Your task to perform on an android device: Clear the shopping cart on bestbuy. Search for razer blade on bestbuy, select the first entry, and add it to the cart. Image 0: 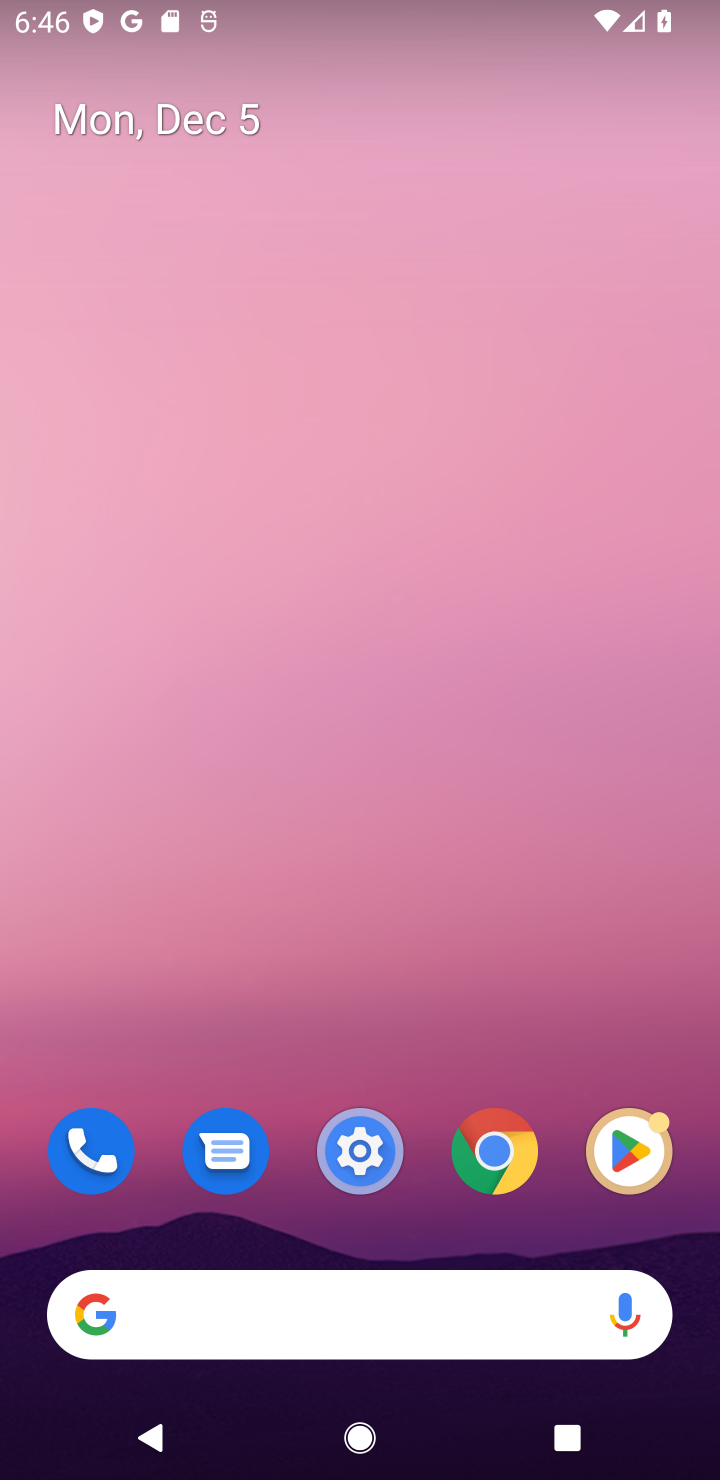
Step 0: click (391, 1333)
Your task to perform on an android device: Clear the shopping cart on bestbuy. Search for razer blade on bestbuy, select the first entry, and add it to the cart. Image 1: 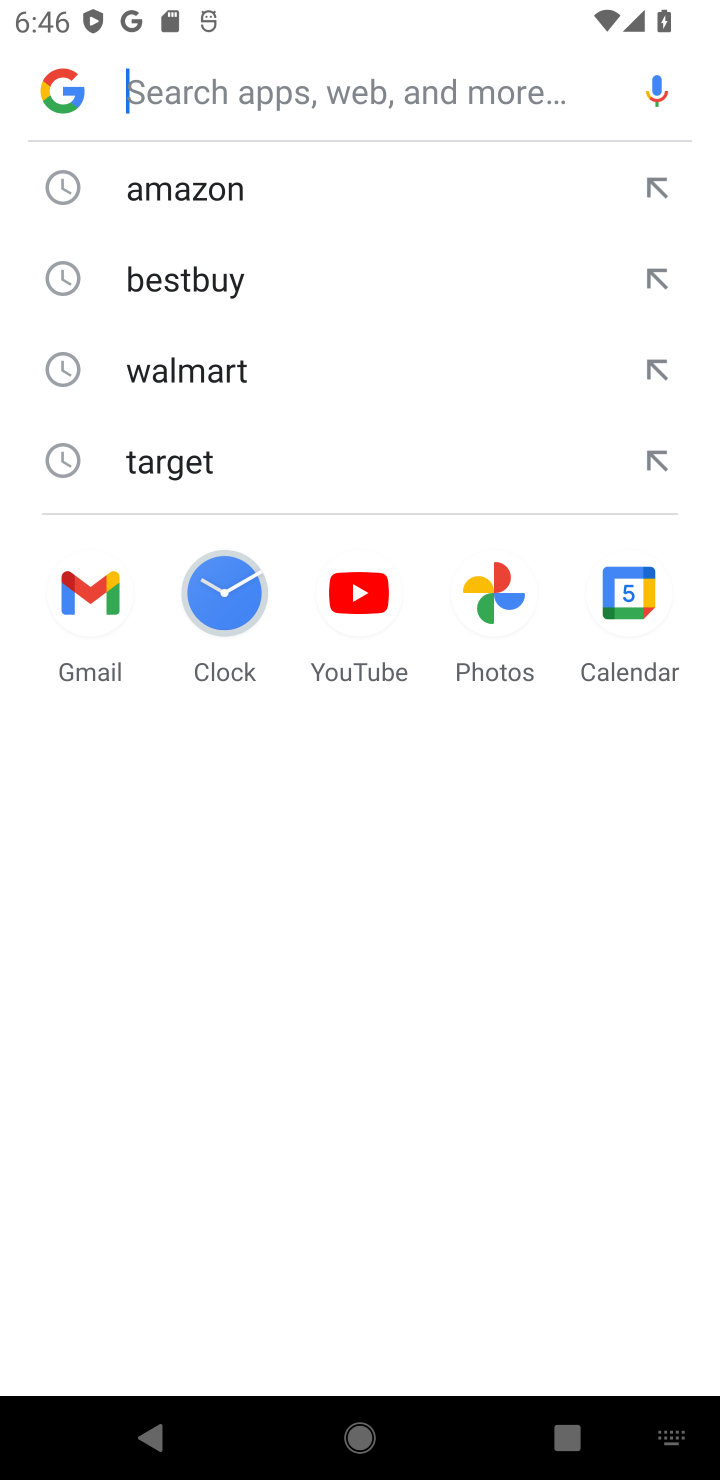
Step 1: click (291, 303)
Your task to perform on an android device: Clear the shopping cart on bestbuy. Search for razer blade on bestbuy, select the first entry, and add it to the cart. Image 2: 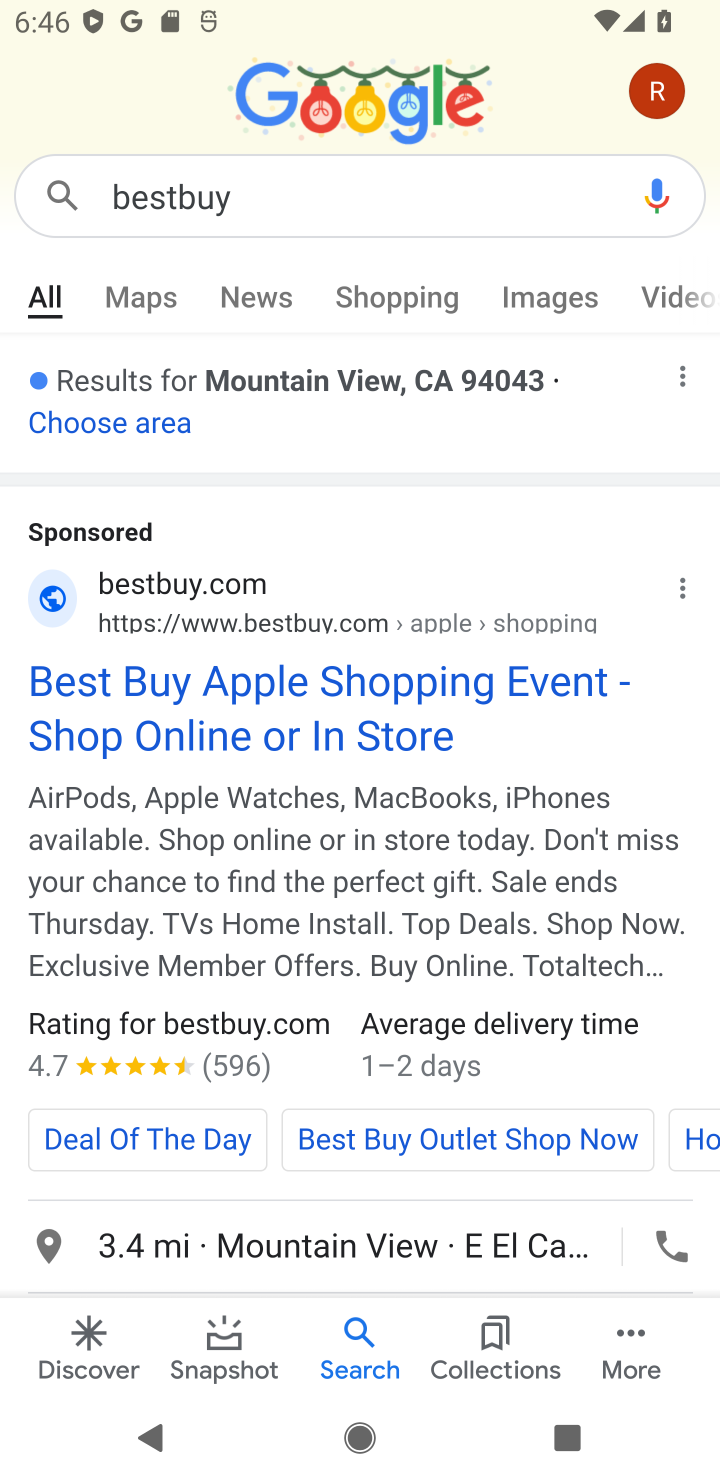
Step 2: click (277, 724)
Your task to perform on an android device: Clear the shopping cart on bestbuy. Search for razer blade on bestbuy, select the first entry, and add it to the cart. Image 3: 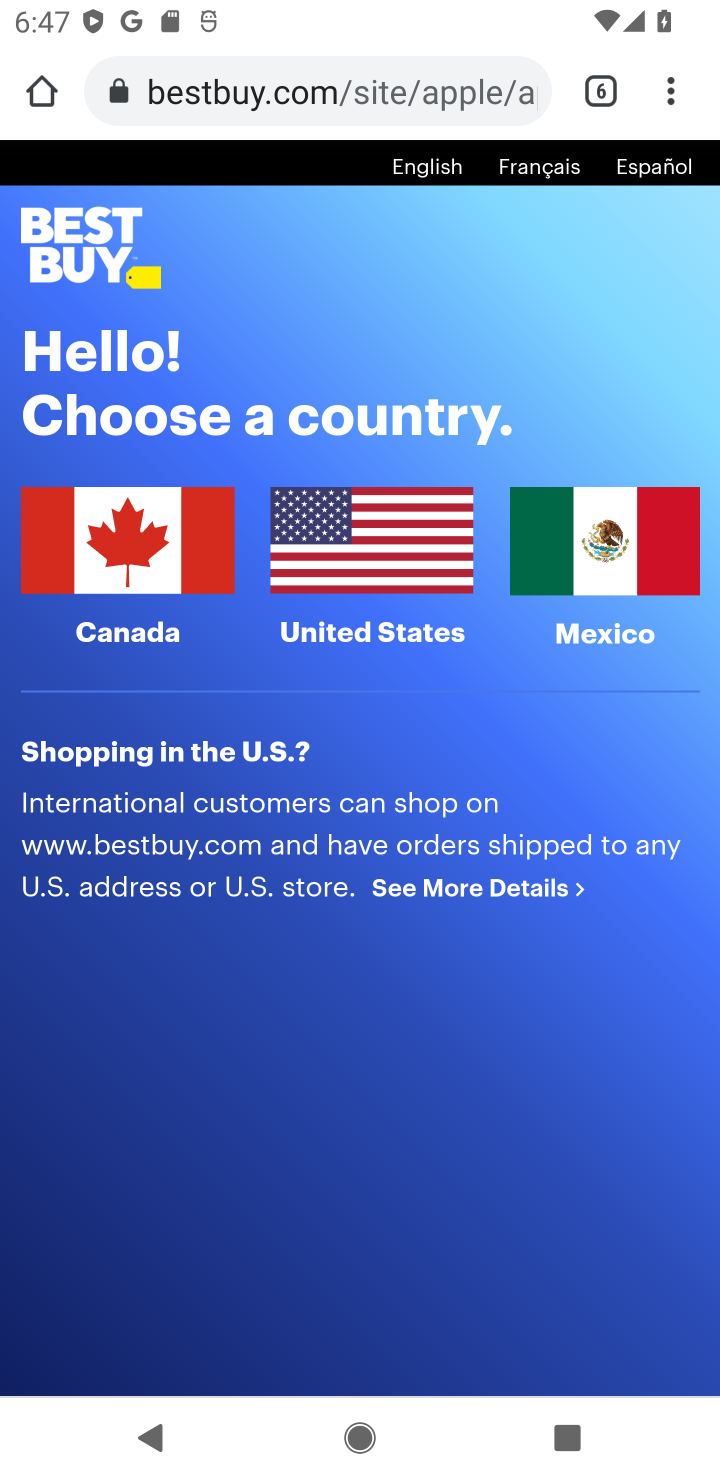
Step 3: click (187, 621)
Your task to perform on an android device: Clear the shopping cart on bestbuy. Search for razer blade on bestbuy, select the first entry, and add it to the cart. Image 4: 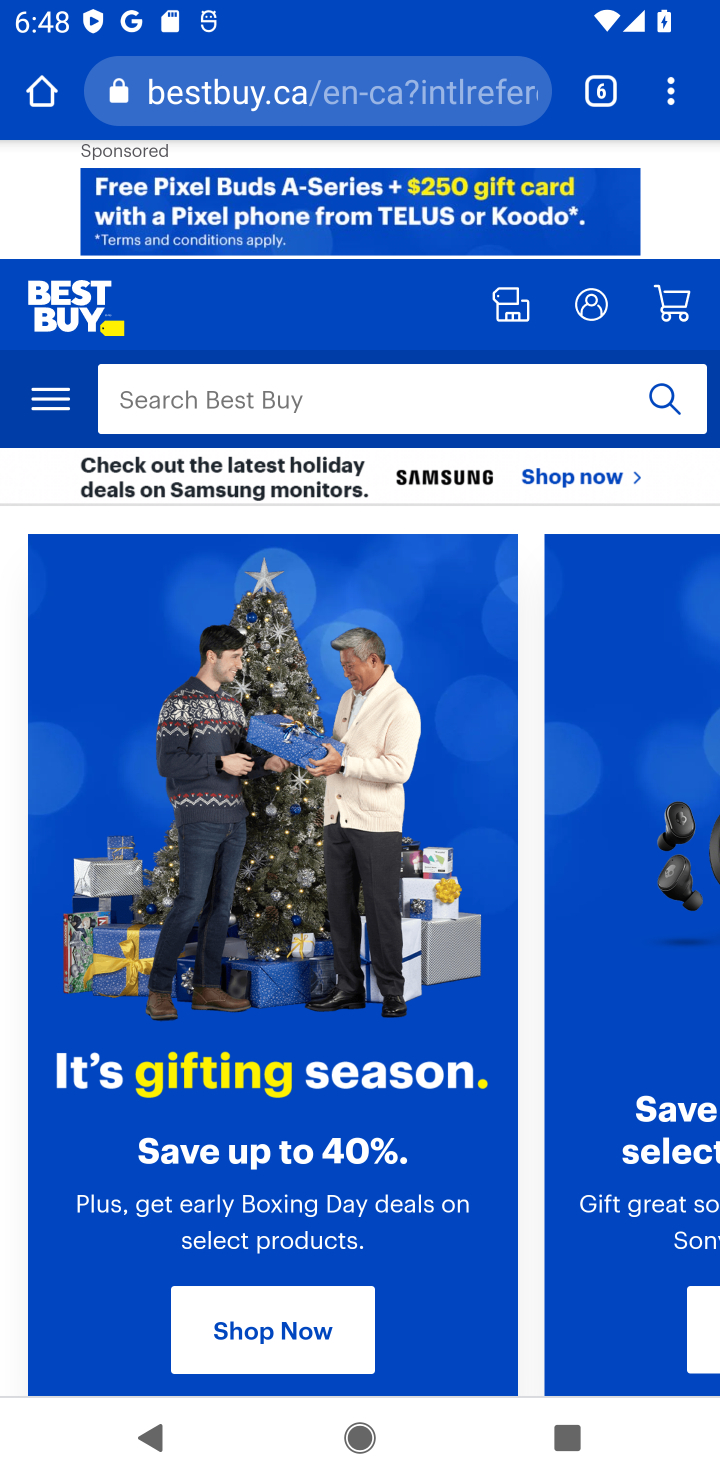
Step 4: click (209, 400)
Your task to perform on an android device: Clear the shopping cart on bestbuy. Search for razer blade on bestbuy, select the first entry, and add it to the cart. Image 5: 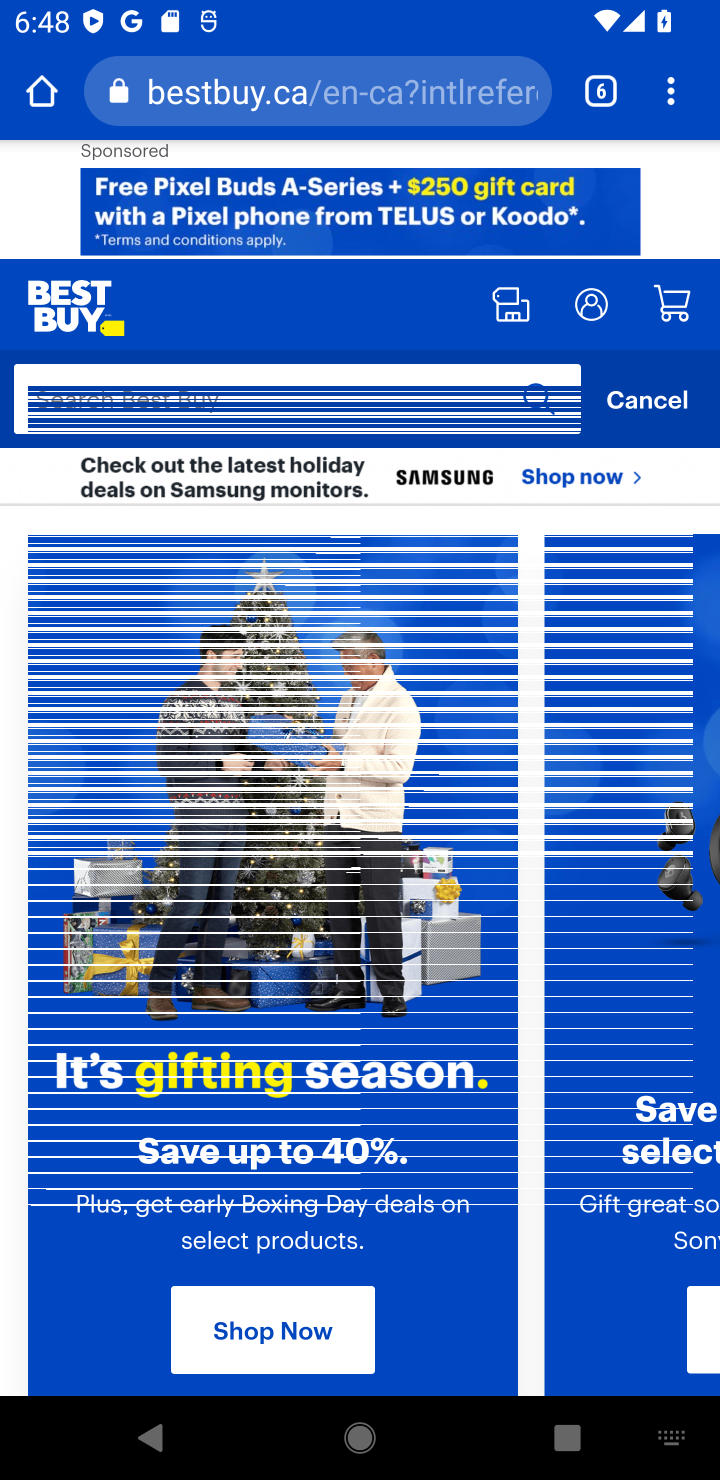
Step 5: type "razer blade"
Your task to perform on an android device: Clear the shopping cart on bestbuy. Search for razer blade on bestbuy, select the first entry, and add it to the cart. Image 6: 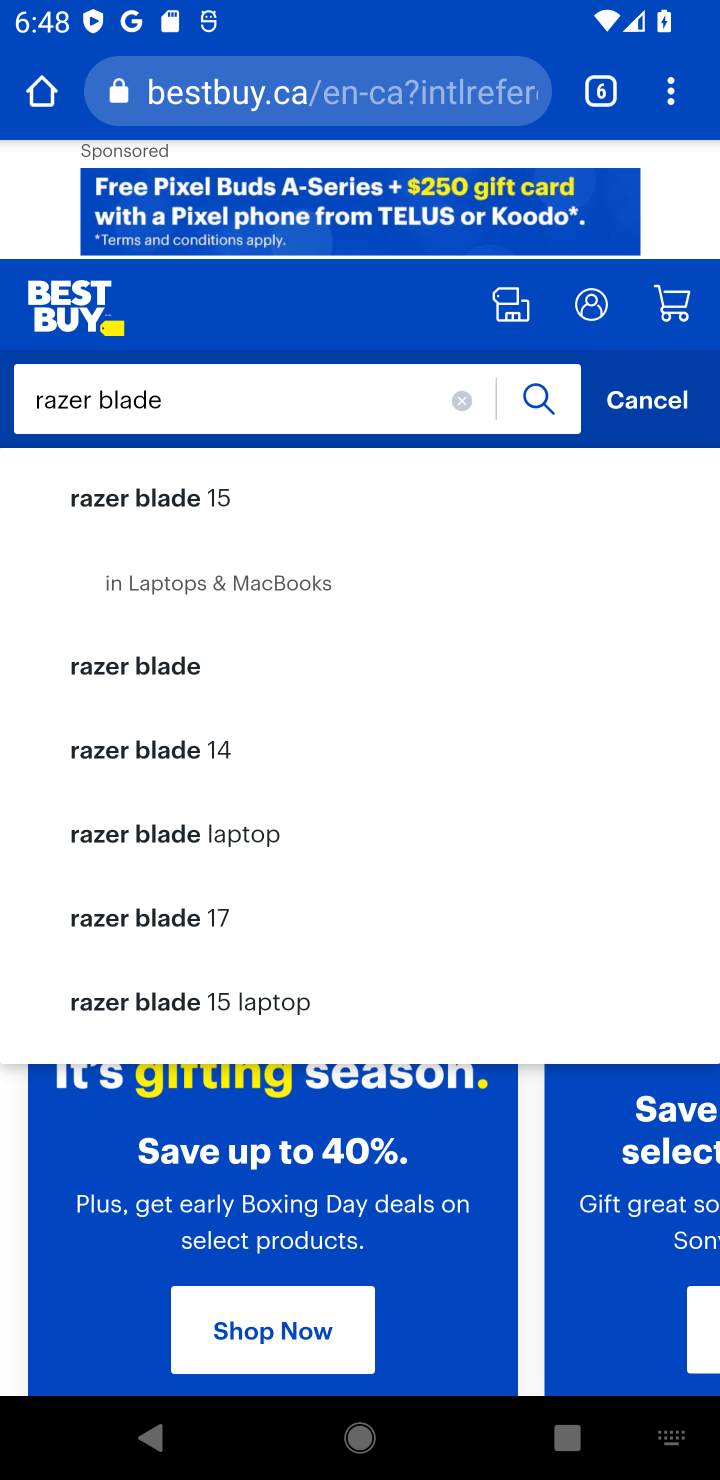
Step 6: click (135, 483)
Your task to perform on an android device: Clear the shopping cart on bestbuy. Search for razer blade on bestbuy, select the first entry, and add it to the cart. Image 7: 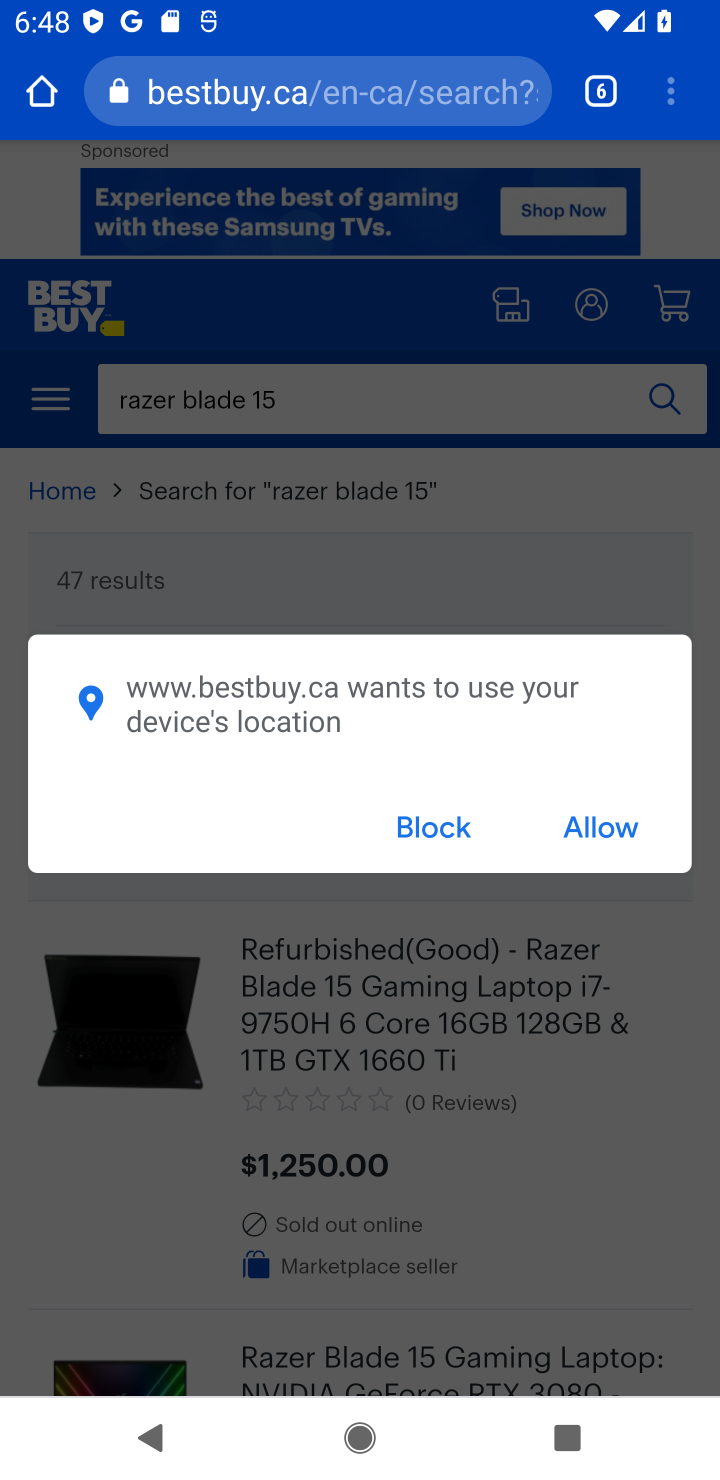
Step 7: click (454, 834)
Your task to perform on an android device: Clear the shopping cart on bestbuy. Search for razer blade on bestbuy, select the first entry, and add it to the cart. Image 8: 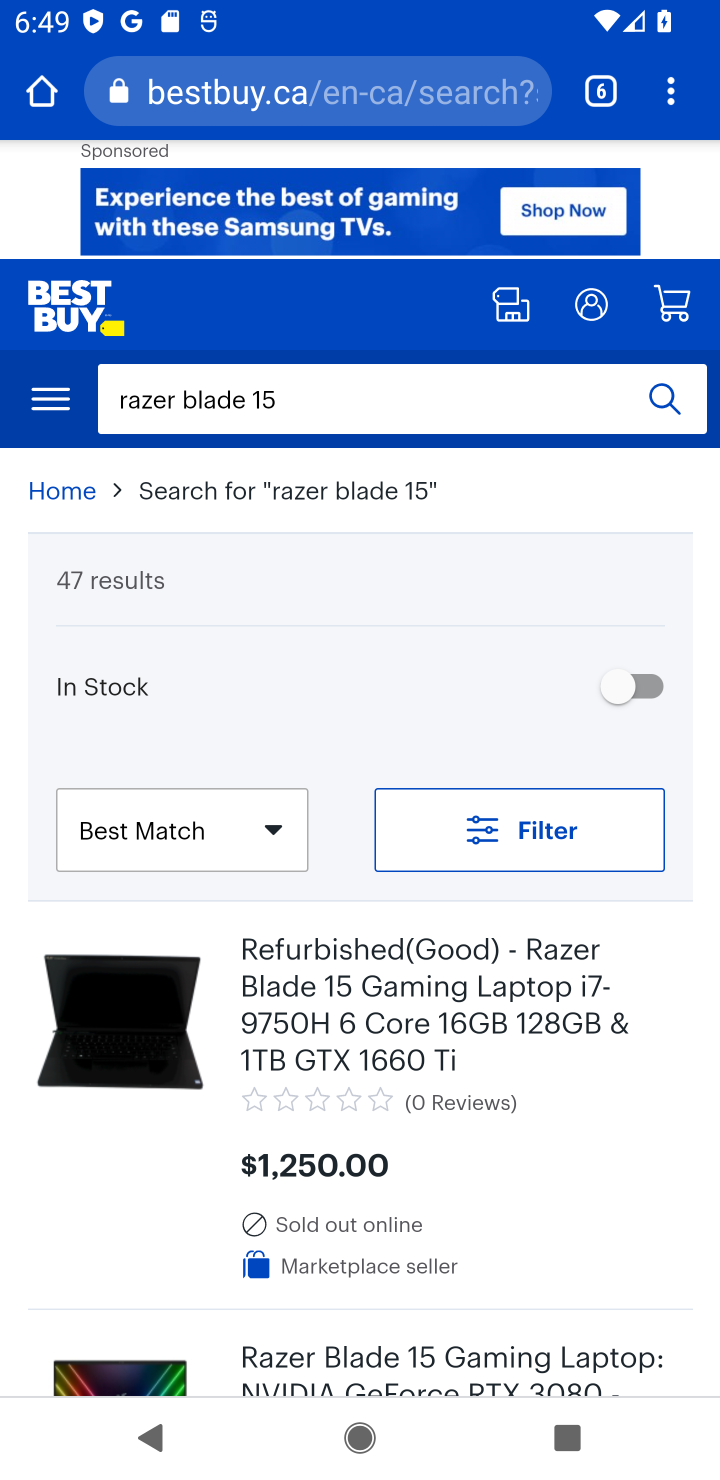
Step 8: click (431, 1030)
Your task to perform on an android device: Clear the shopping cart on bestbuy. Search for razer blade on bestbuy, select the first entry, and add it to the cart. Image 9: 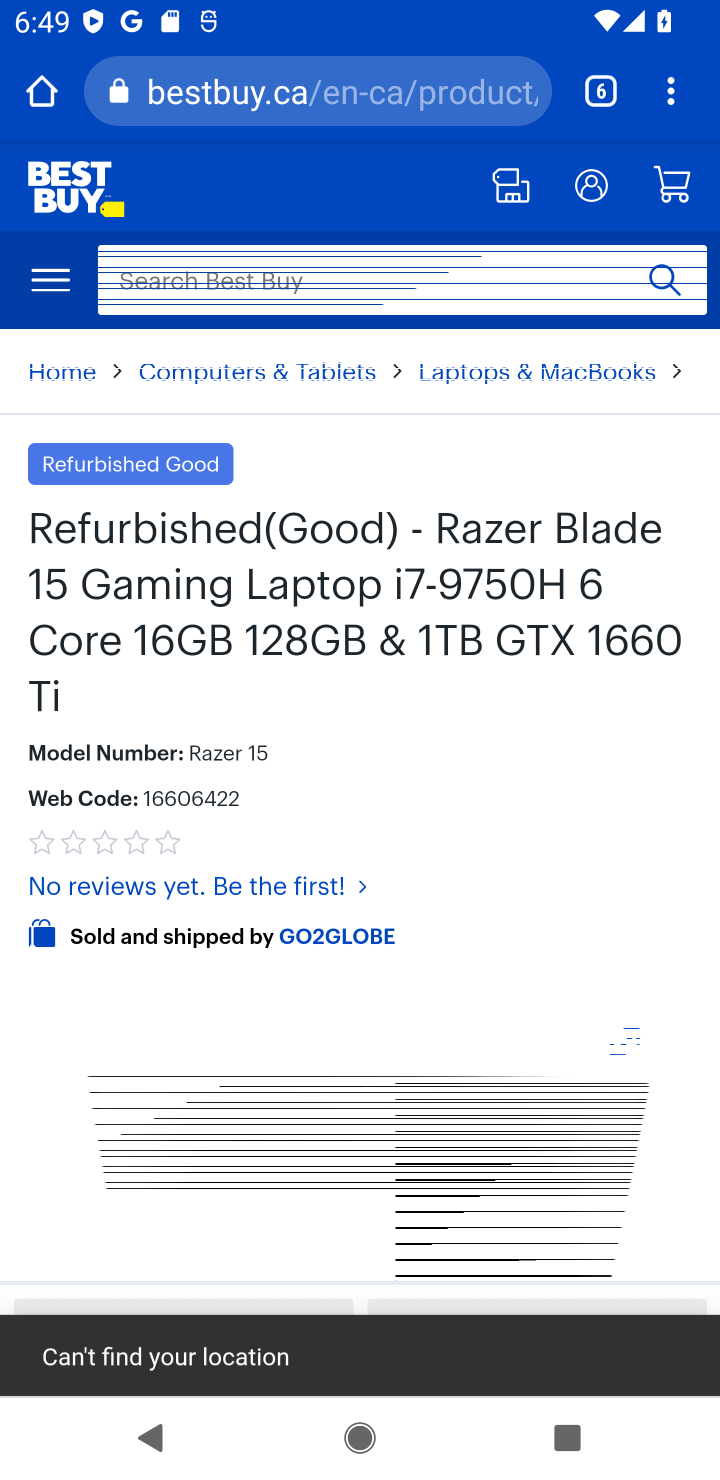
Step 9: drag from (431, 1030) to (378, 458)
Your task to perform on an android device: Clear the shopping cart on bestbuy. Search for razer blade on bestbuy, select the first entry, and add it to the cart. Image 10: 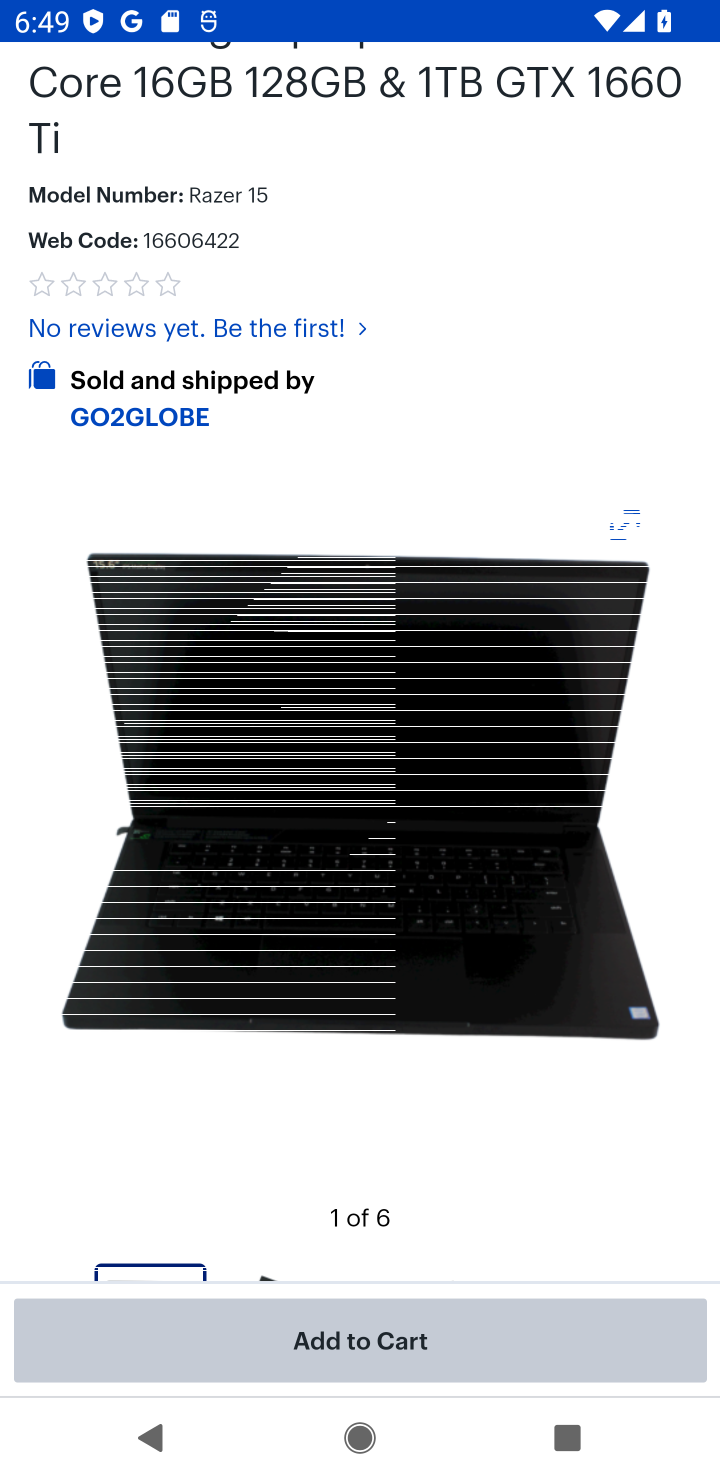
Step 10: drag from (408, 947) to (431, 338)
Your task to perform on an android device: Clear the shopping cart on bestbuy. Search for razer blade on bestbuy, select the first entry, and add it to the cart. Image 11: 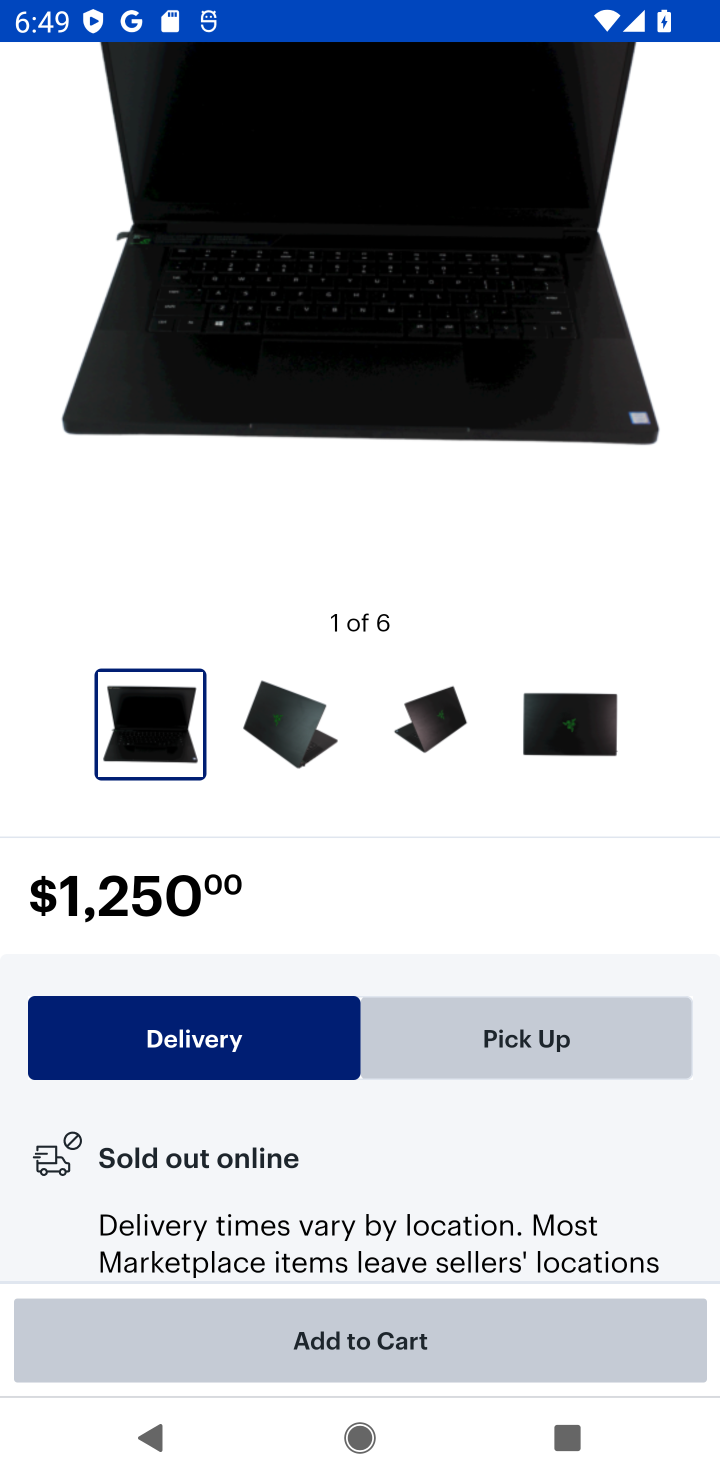
Step 11: click (107, 1049)
Your task to perform on an android device: Clear the shopping cart on bestbuy. Search for razer blade on bestbuy, select the first entry, and add it to the cart. Image 12: 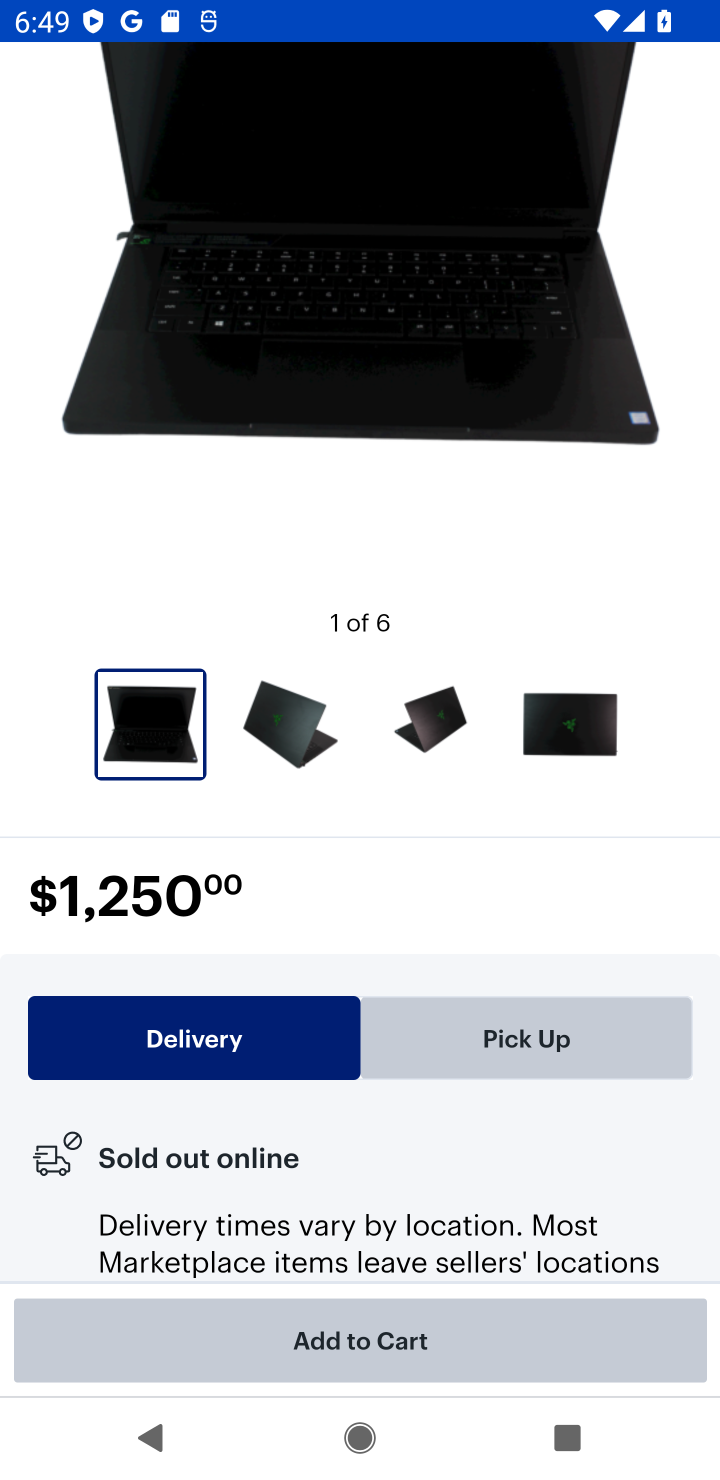
Step 12: task complete